Your task to perform on an android device: Turn on the flashlight Image 0: 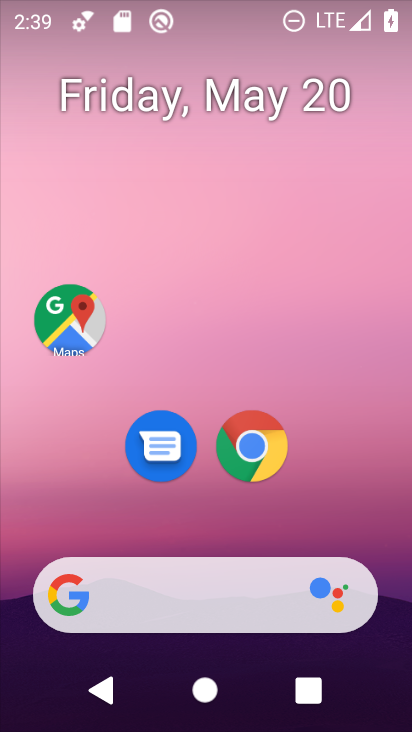
Step 0: drag from (208, 5) to (230, 476)
Your task to perform on an android device: Turn on the flashlight Image 1: 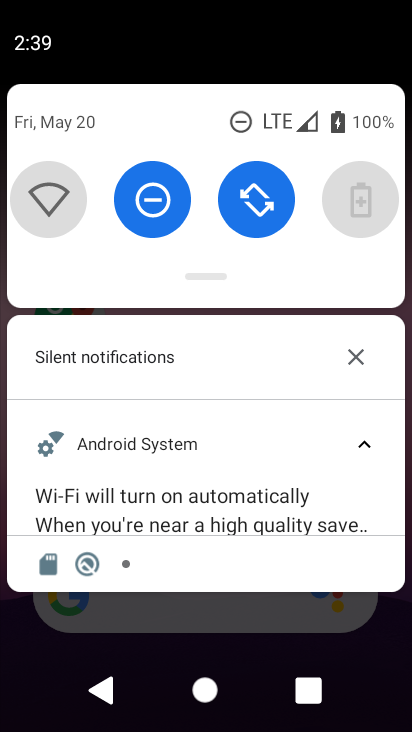
Step 1: task complete